Your task to perform on an android device: Open Wikipedia Image 0: 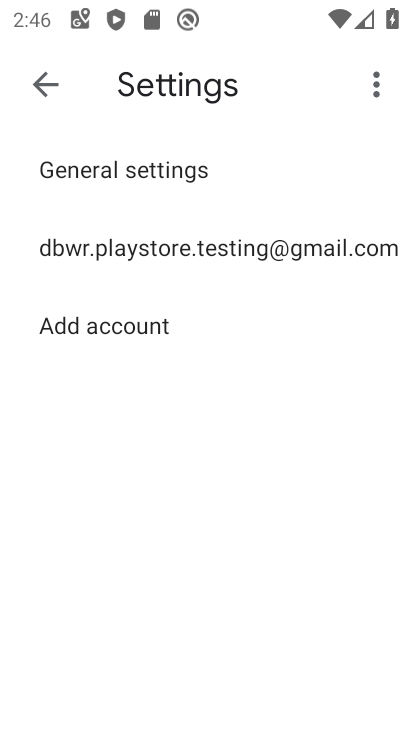
Step 0: press home button
Your task to perform on an android device: Open Wikipedia Image 1: 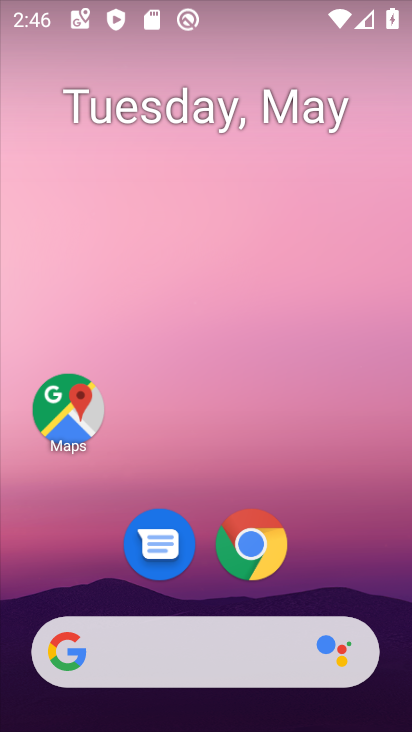
Step 1: click (253, 543)
Your task to perform on an android device: Open Wikipedia Image 2: 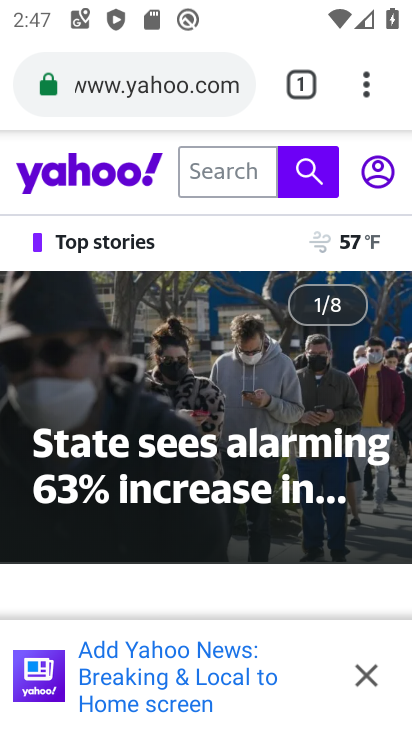
Step 2: click (218, 97)
Your task to perform on an android device: Open Wikipedia Image 3: 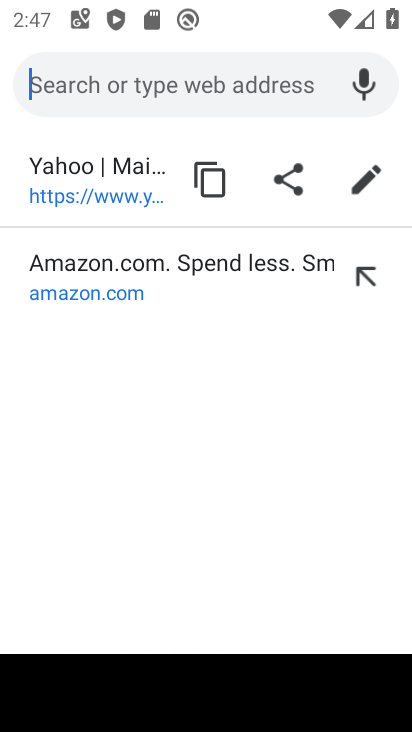
Step 3: click (221, 74)
Your task to perform on an android device: Open Wikipedia Image 4: 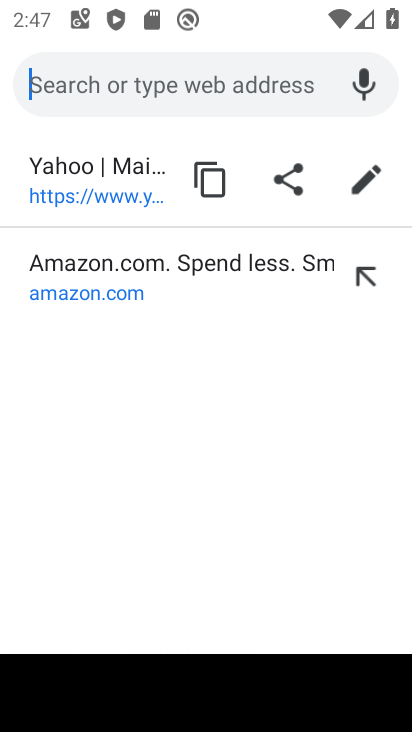
Step 4: type "Wikipedia"
Your task to perform on an android device: Open Wikipedia Image 5: 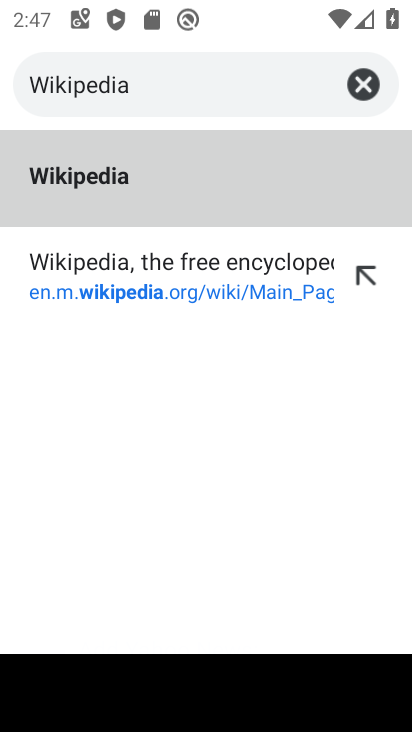
Step 5: click (118, 170)
Your task to perform on an android device: Open Wikipedia Image 6: 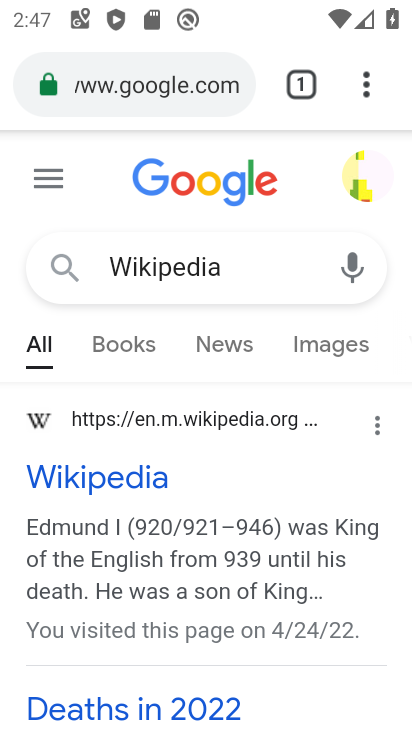
Step 6: click (148, 484)
Your task to perform on an android device: Open Wikipedia Image 7: 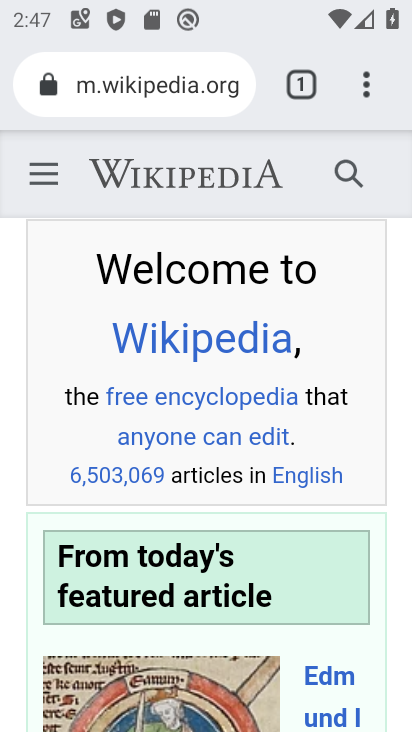
Step 7: task complete